Your task to perform on an android device: What is the news today? Image 0: 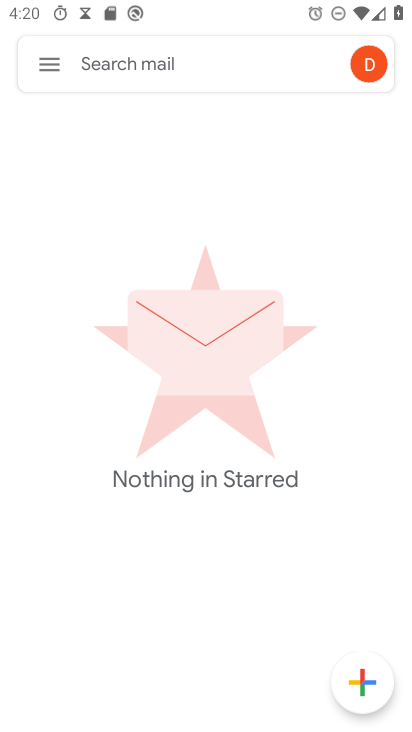
Step 0: press home button
Your task to perform on an android device: What is the news today? Image 1: 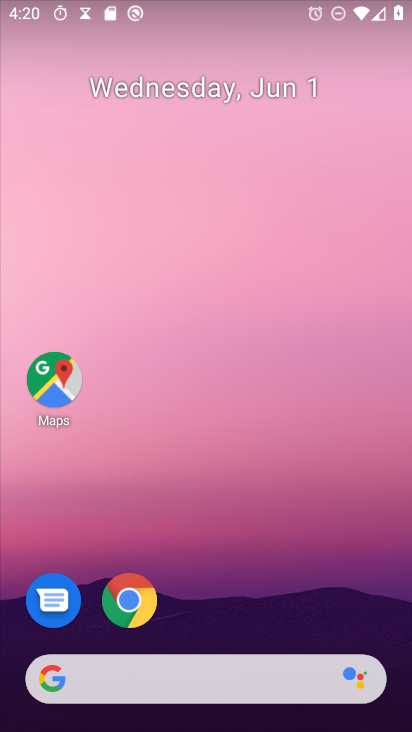
Step 1: drag from (214, 631) to (219, 7)
Your task to perform on an android device: What is the news today? Image 2: 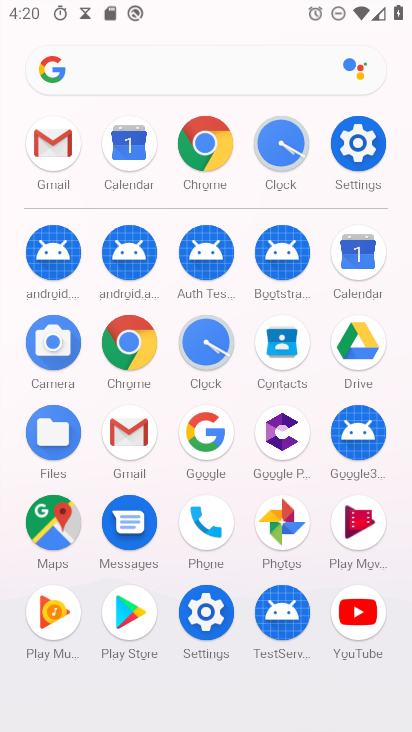
Step 2: click (217, 442)
Your task to perform on an android device: What is the news today? Image 3: 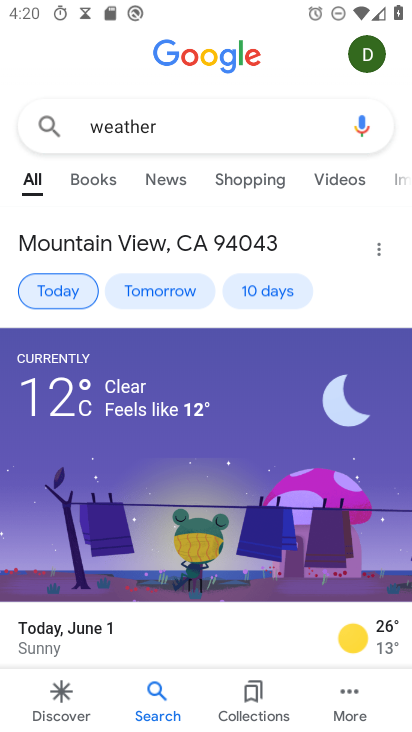
Step 3: click (267, 118)
Your task to perform on an android device: What is the news today? Image 4: 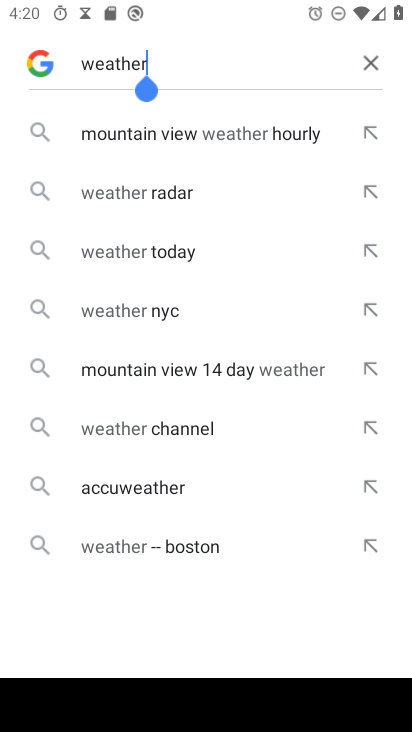
Step 4: click (368, 66)
Your task to perform on an android device: What is the news today? Image 5: 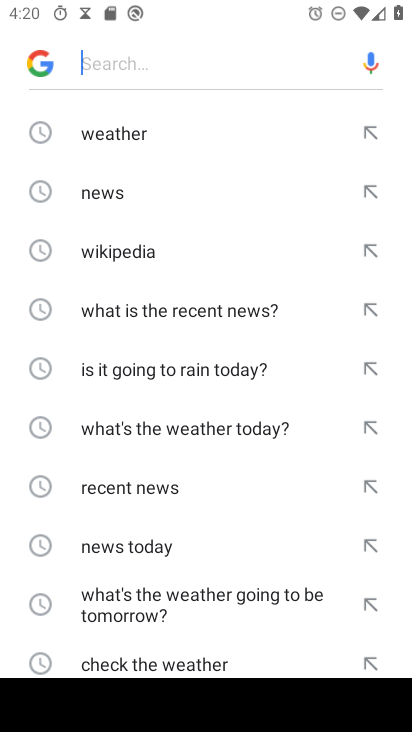
Step 5: click (134, 542)
Your task to perform on an android device: What is the news today? Image 6: 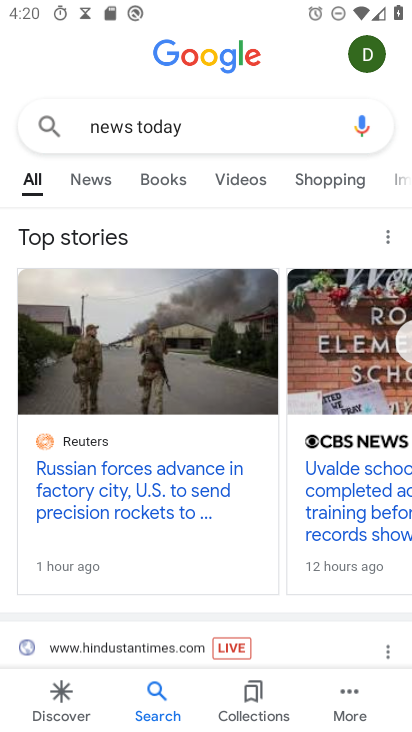
Step 6: task complete